Your task to perform on an android device: allow cookies in the chrome app Image 0: 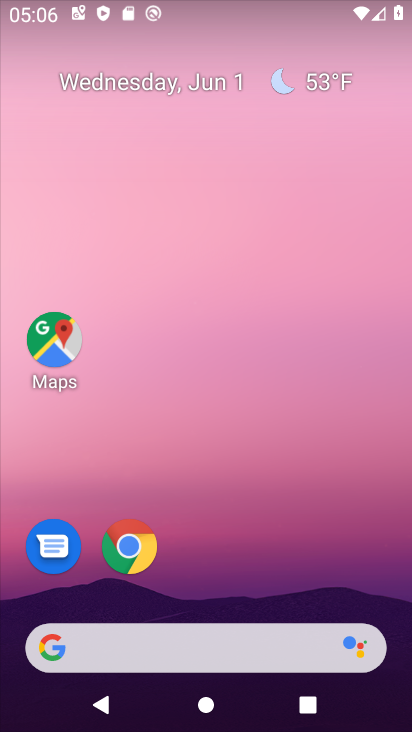
Step 0: click (143, 543)
Your task to perform on an android device: allow cookies in the chrome app Image 1: 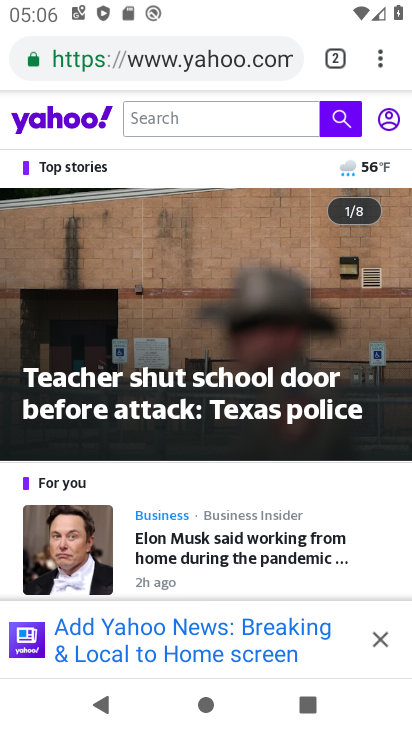
Step 1: click (382, 66)
Your task to perform on an android device: allow cookies in the chrome app Image 2: 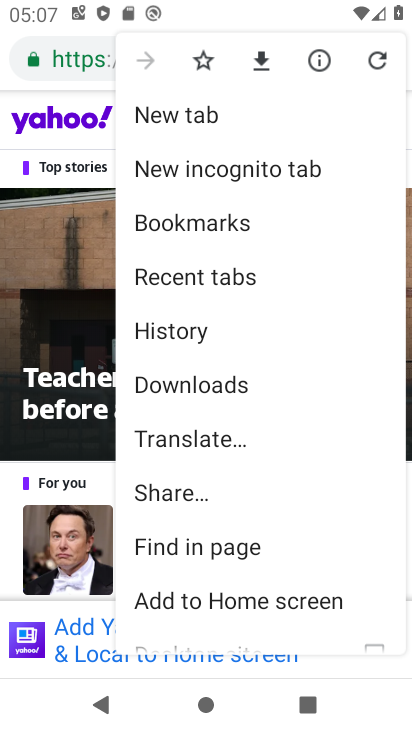
Step 2: drag from (273, 498) to (251, 265)
Your task to perform on an android device: allow cookies in the chrome app Image 3: 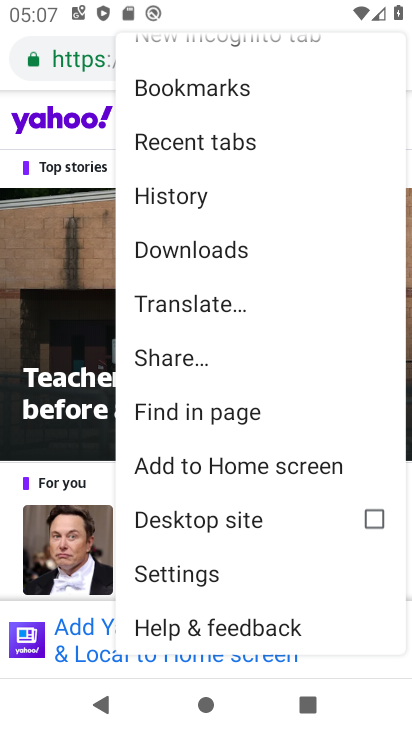
Step 3: drag from (262, 373) to (218, 5)
Your task to perform on an android device: allow cookies in the chrome app Image 4: 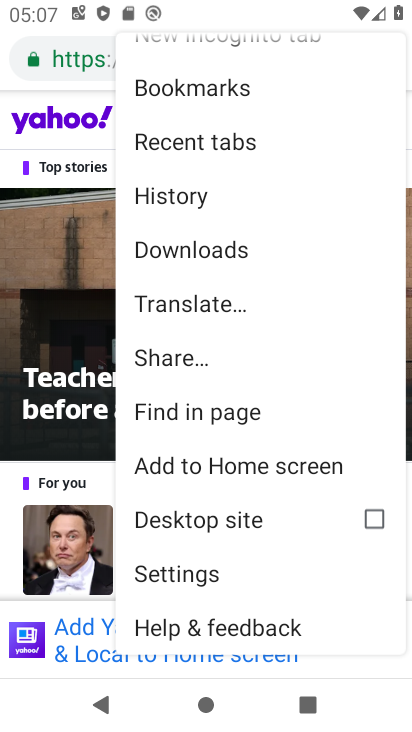
Step 4: click (183, 576)
Your task to perform on an android device: allow cookies in the chrome app Image 5: 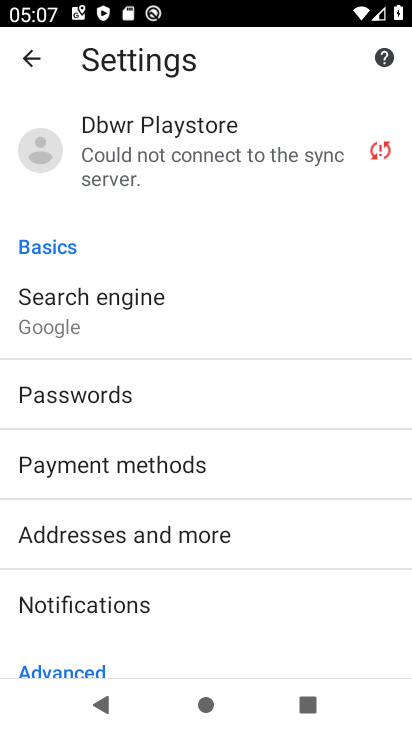
Step 5: drag from (118, 561) to (103, 164)
Your task to perform on an android device: allow cookies in the chrome app Image 6: 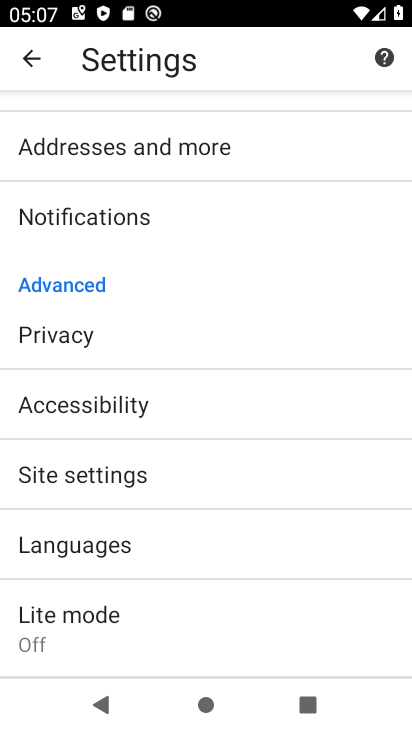
Step 6: click (96, 475)
Your task to perform on an android device: allow cookies in the chrome app Image 7: 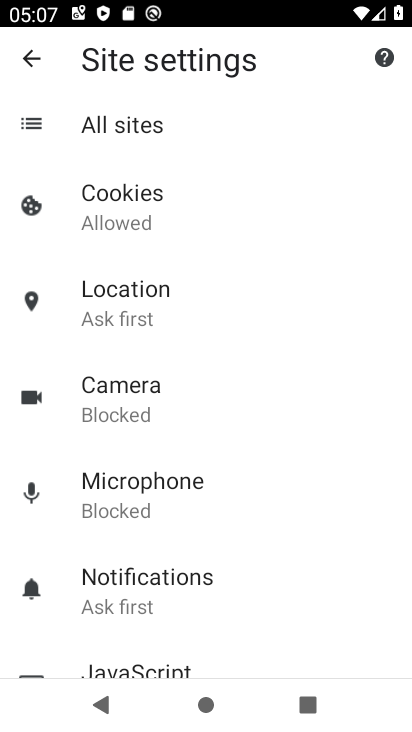
Step 7: click (128, 198)
Your task to perform on an android device: allow cookies in the chrome app Image 8: 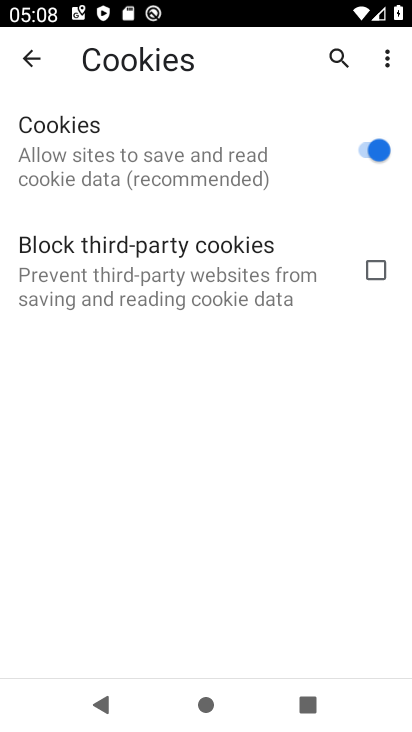
Step 8: task complete